Your task to perform on an android device: What's the weather today? Image 0: 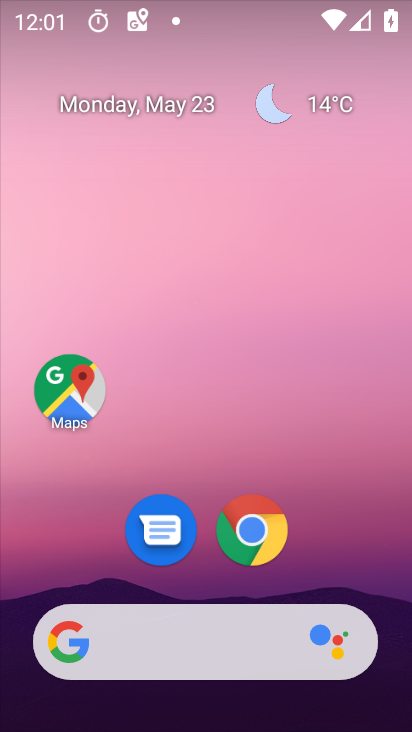
Step 0: click (327, 105)
Your task to perform on an android device: What's the weather today? Image 1: 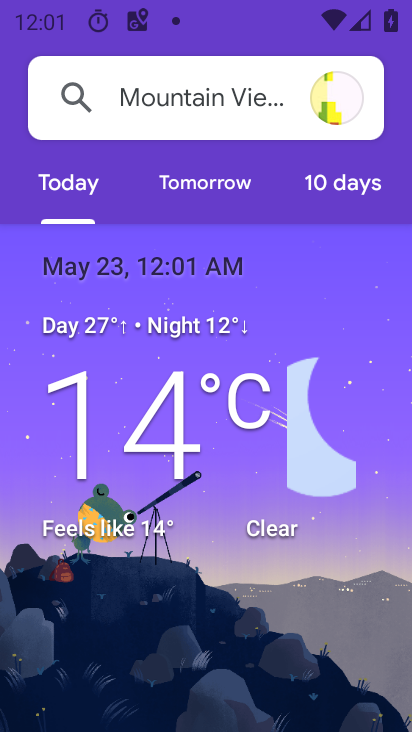
Step 1: task complete